Your task to perform on an android device: Turn off the flashlight Image 0: 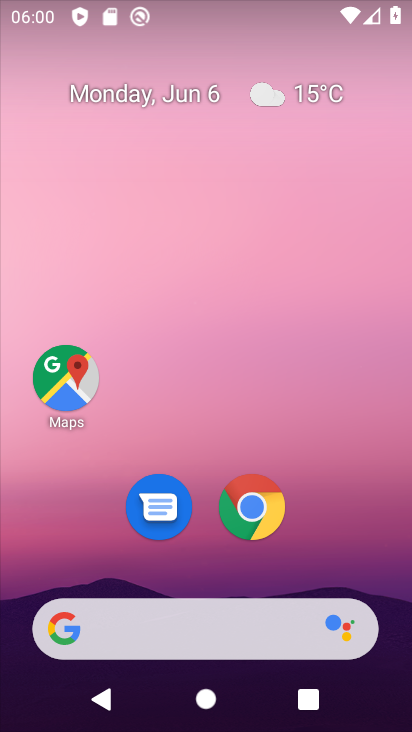
Step 0: drag from (230, 569) to (291, 280)
Your task to perform on an android device: Turn off the flashlight Image 1: 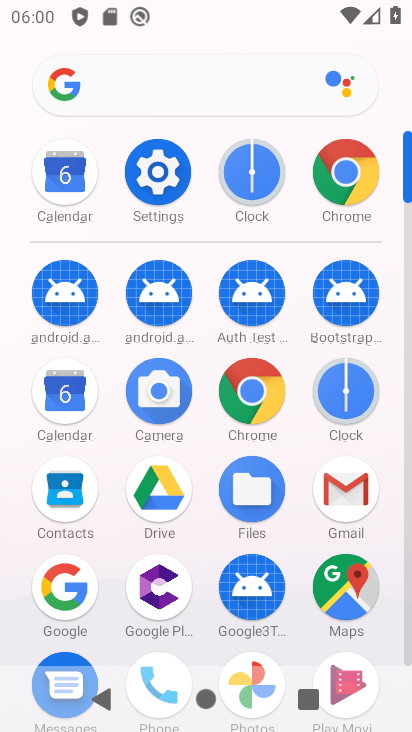
Step 1: task complete